Your task to perform on an android device: toggle notification dots Image 0: 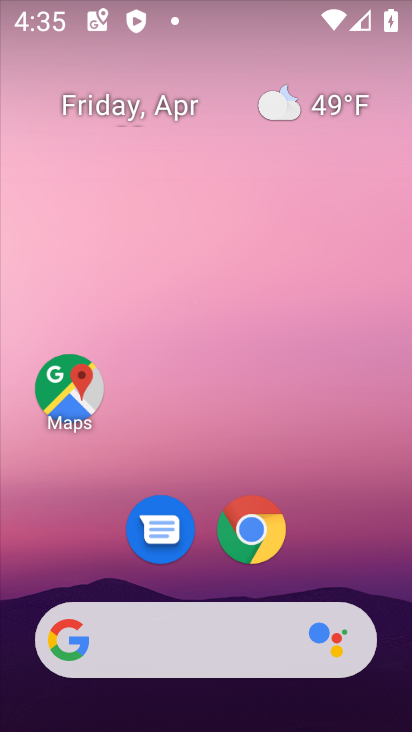
Step 0: drag from (214, 719) to (172, 204)
Your task to perform on an android device: toggle notification dots Image 1: 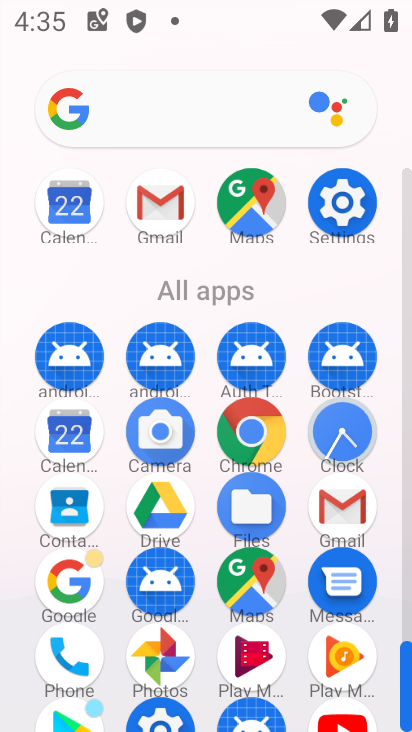
Step 1: click (329, 200)
Your task to perform on an android device: toggle notification dots Image 2: 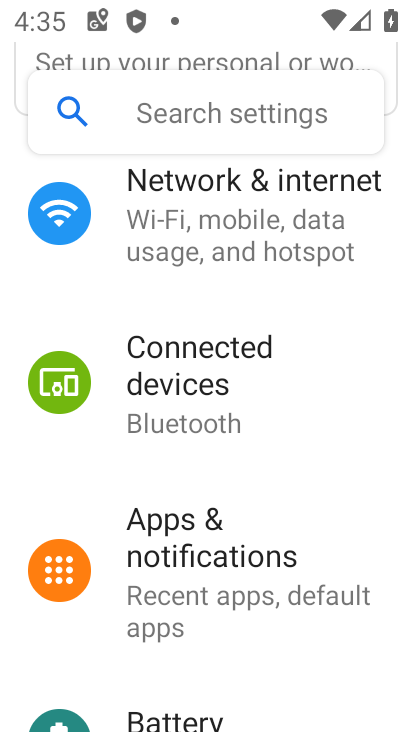
Step 2: click (214, 560)
Your task to perform on an android device: toggle notification dots Image 3: 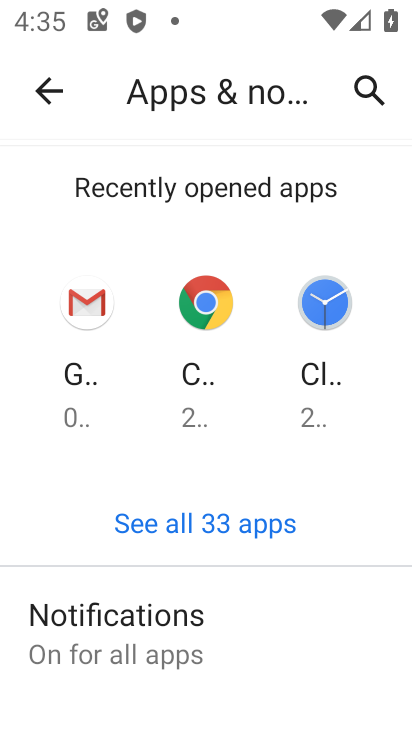
Step 3: click (119, 659)
Your task to perform on an android device: toggle notification dots Image 4: 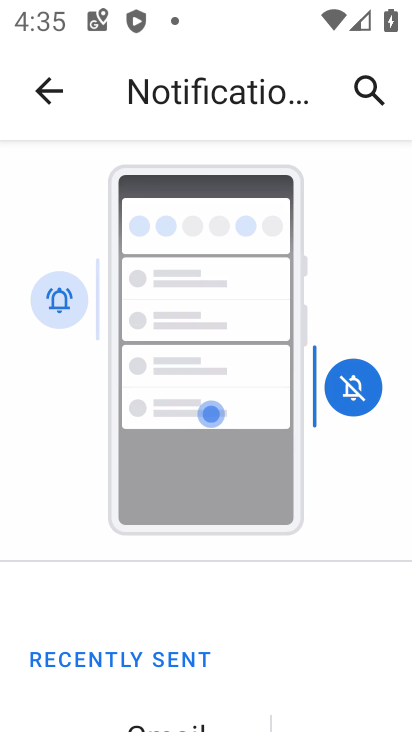
Step 4: drag from (229, 706) to (199, 303)
Your task to perform on an android device: toggle notification dots Image 5: 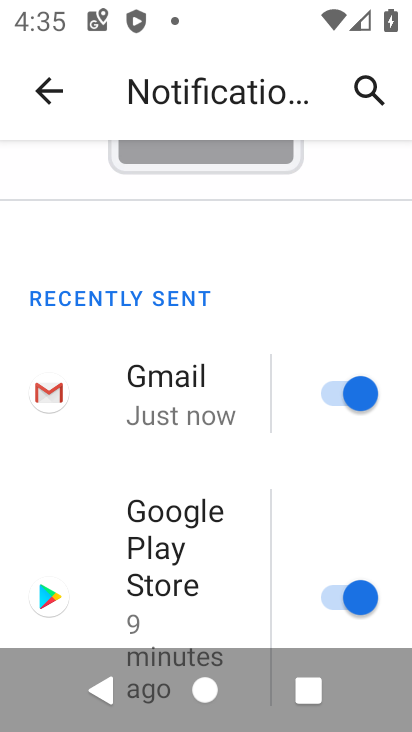
Step 5: drag from (248, 619) to (231, 294)
Your task to perform on an android device: toggle notification dots Image 6: 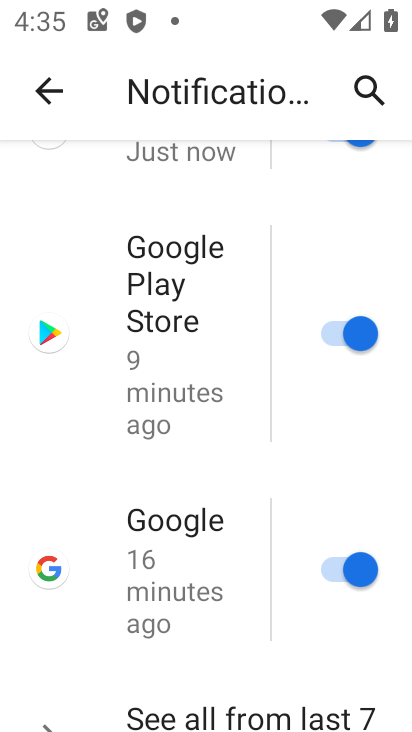
Step 6: drag from (249, 680) to (228, 256)
Your task to perform on an android device: toggle notification dots Image 7: 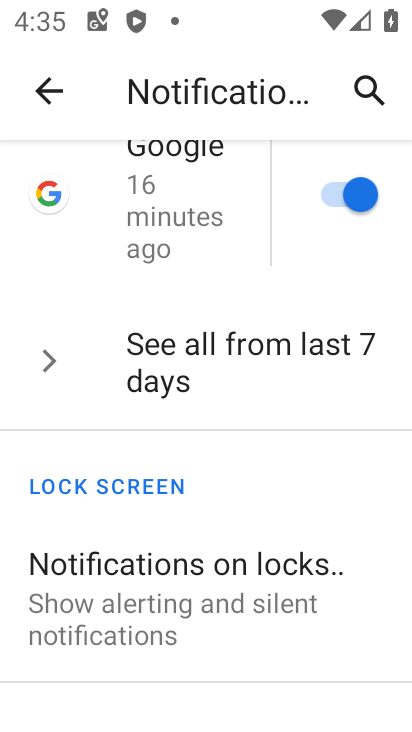
Step 7: drag from (232, 638) to (220, 278)
Your task to perform on an android device: toggle notification dots Image 8: 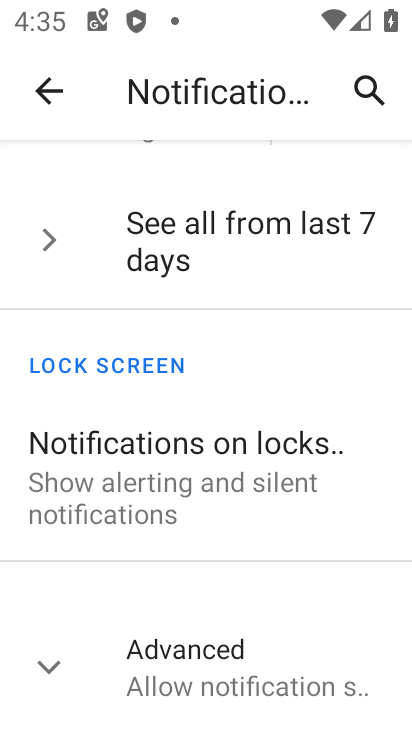
Step 8: click (233, 664)
Your task to perform on an android device: toggle notification dots Image 9: 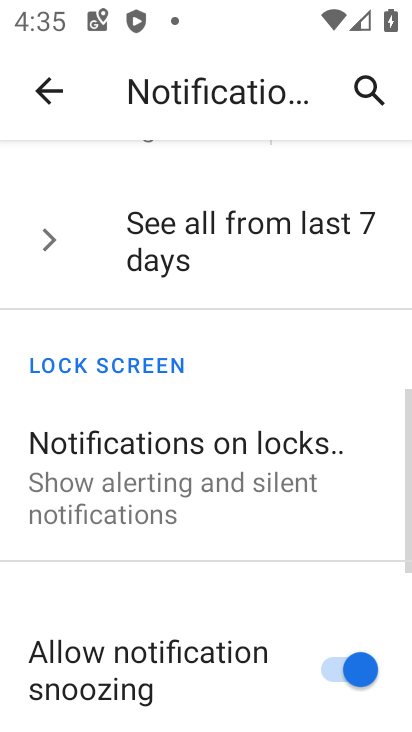
Step 9: drag from (218, 686) to (220, 200)
Your task to perform on an android device: toggle notification dots Image 10: 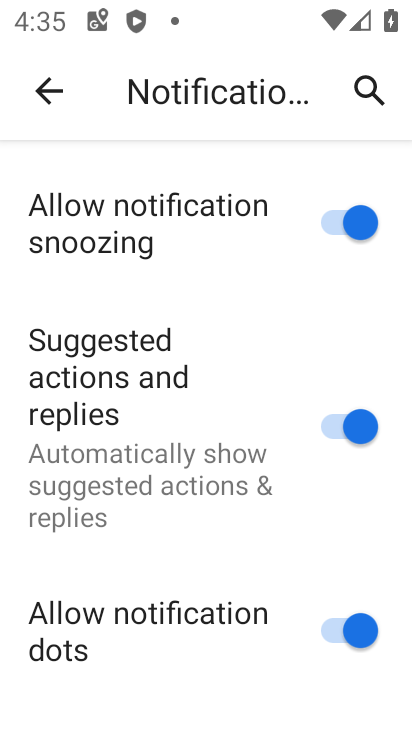
Step 10: click (328, 635)
Your task to perform on an android device: toggle notification dots Image 11: 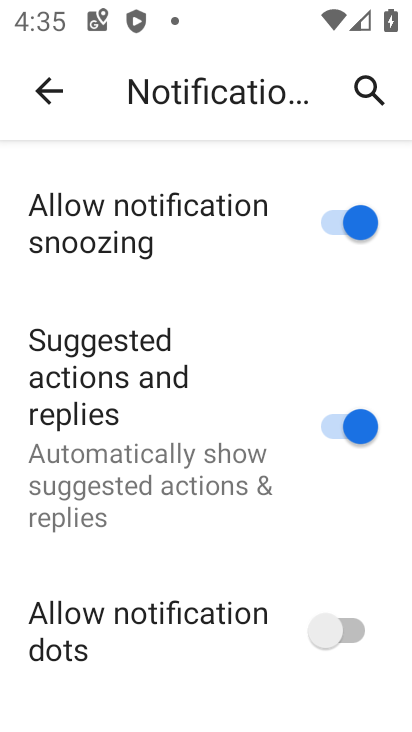
Step 11: task complete